Your task to perform on an android device: Open the Play Movies app and select the watchlist tab. Image 0: 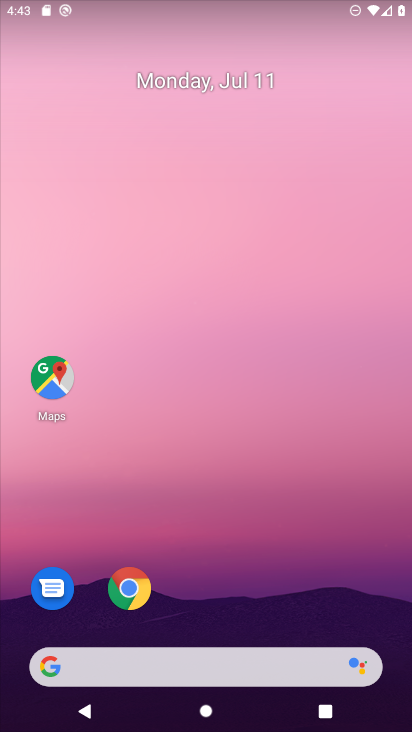
Step 0: press home button
Your task to perform on an android device: Open the Play Movies app and select the watchlist tab. Image 1: 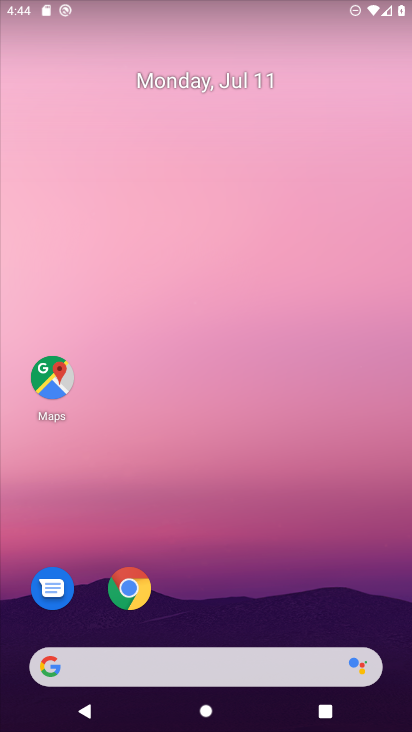
Step 1: drag from (272, 490) to (297, 12)
Your task to perform on an android device: Open the Play Movies app and select the watchlist tab. Image 2: 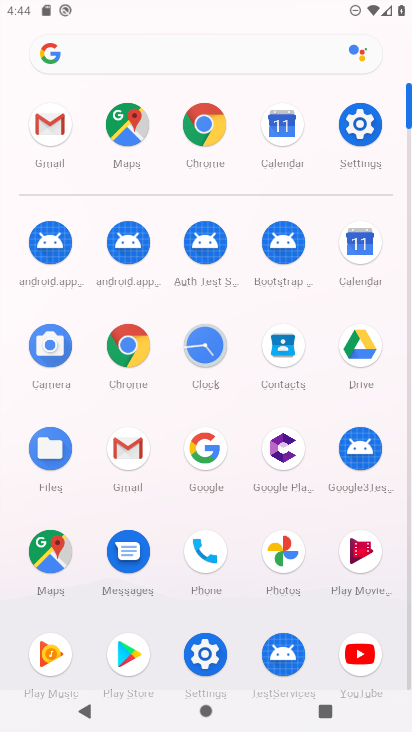
Step 2: click (357, 553)
Your task to perform on an android device: Open the Play Movies app and select the watchlist tab. Image 3: 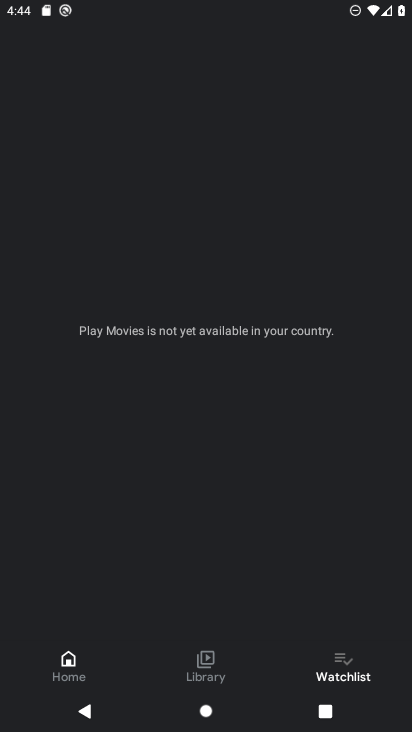
Step 3: click (346, 658)
Your task to perform on an android device: Open the Play Movies app and select the watchlist tab. Image 4: 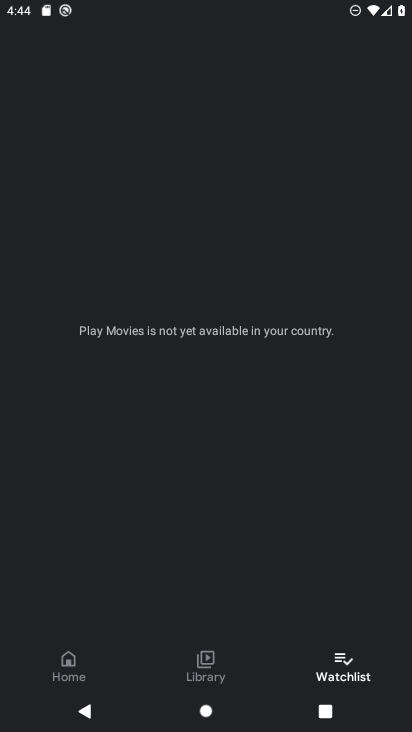
Step 4: task complete